Your task to perform on an android device: Go to display settings Image 0: 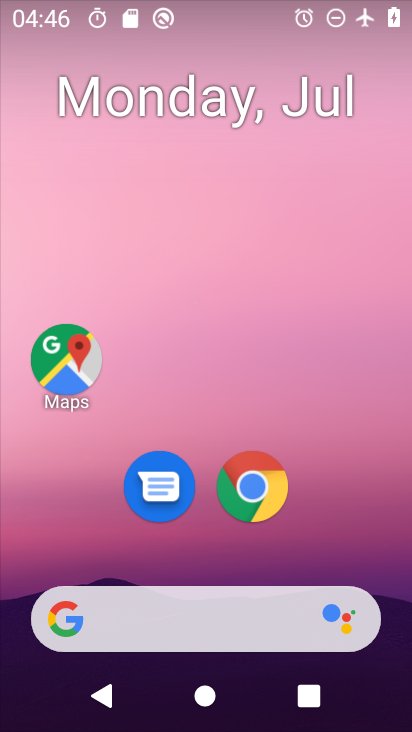
Step 0: drag from (155, 595) to (209, 11)
Your task to perform on an android device: Go to display settings Image 1: 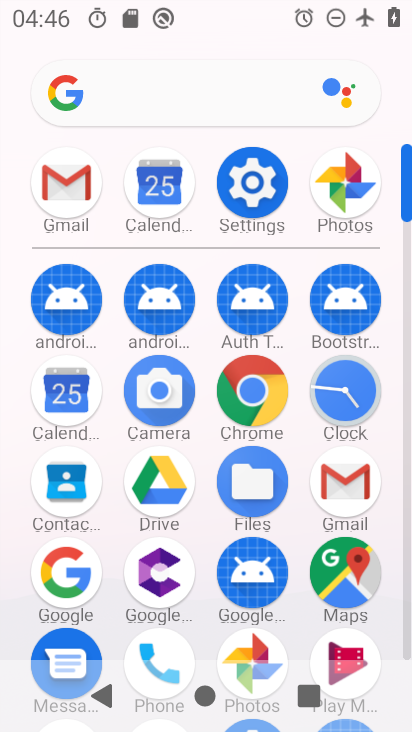
Step 1: click (235, 169)
Your task to perform on an android device: Go to display settings Image 2: 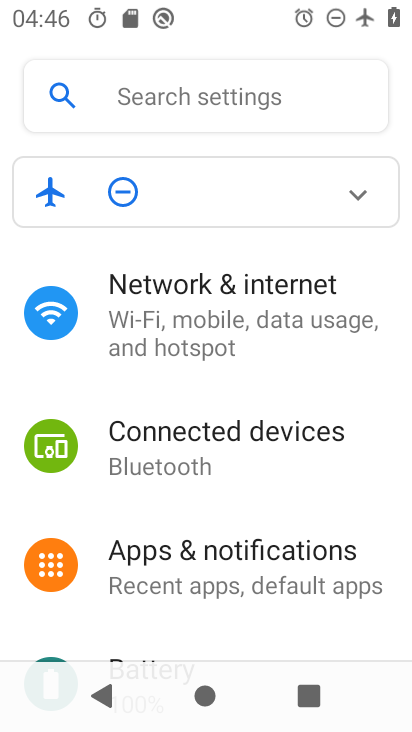
Step 2: drag from (245, 521) to (261, 111)
Your task to perform on an android device: Go to display settings Image 3: 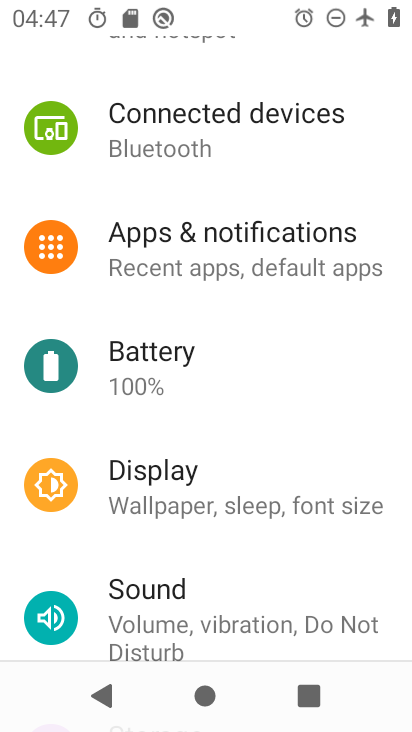
Step 3: click (188, 480)
Your task to perform on an android device: Go to display settings Image 4: 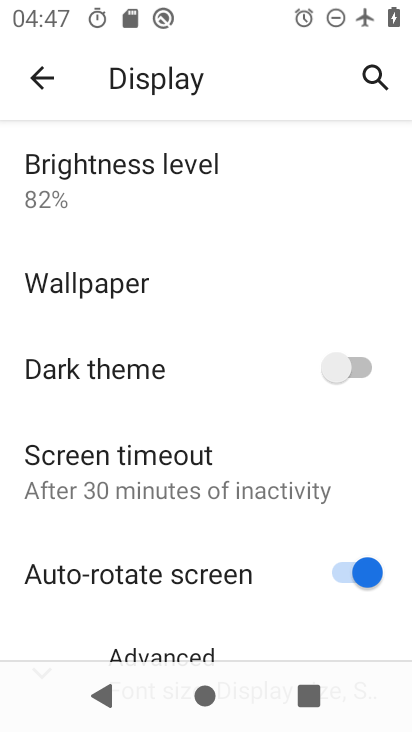
Step 4: task complete